Your task to perform on an android device: check google app version Image 0: 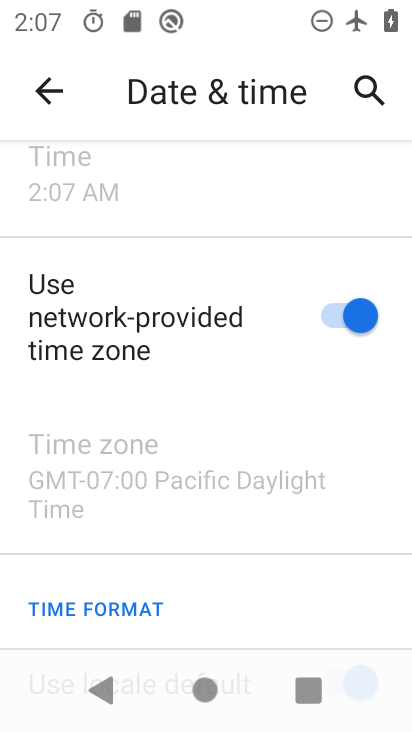
Step 0: press home button
Your task to perform on an android device: check google app version Image 1: 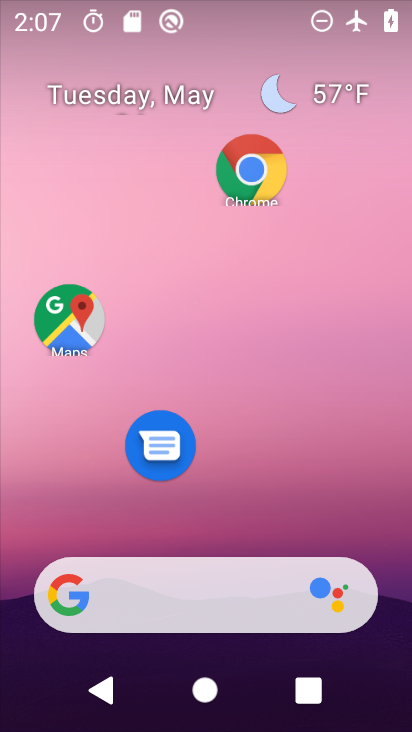
Step 1: drag from (235, 722) to (235, 171)
Your task to perform on an android device: check google app version Image 2: 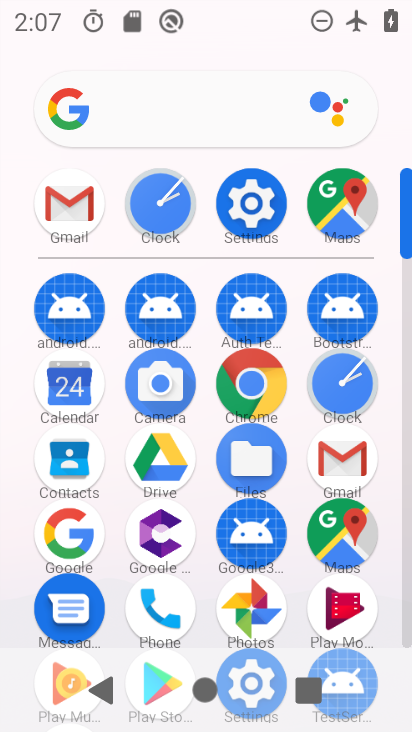
Step 2: click (75, 530)
Your task to perform on an android device: check google app version Image 3: 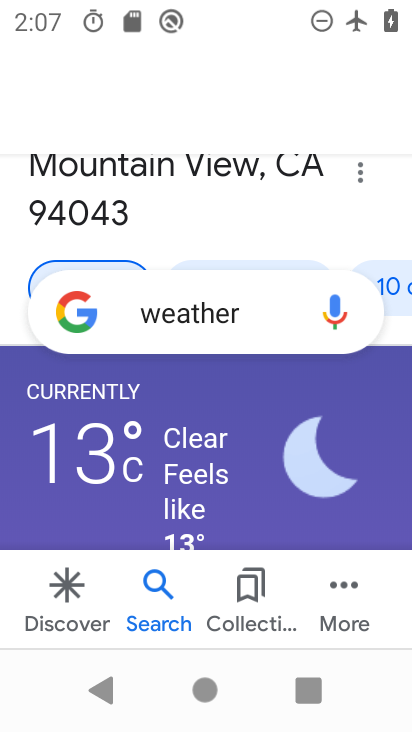
Step 3: click (348, 587)
Your task to perform on an android device: check google app version Image 4: 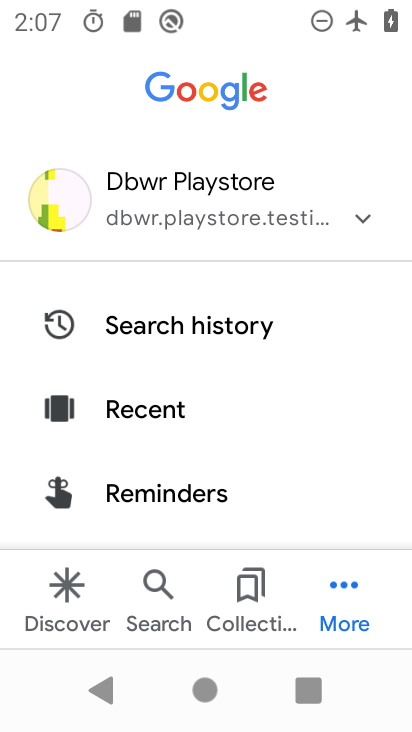
Step 4: drag from (228, 512) to (216, 176)
Your task to perform on an android device: check google app version Image 5: 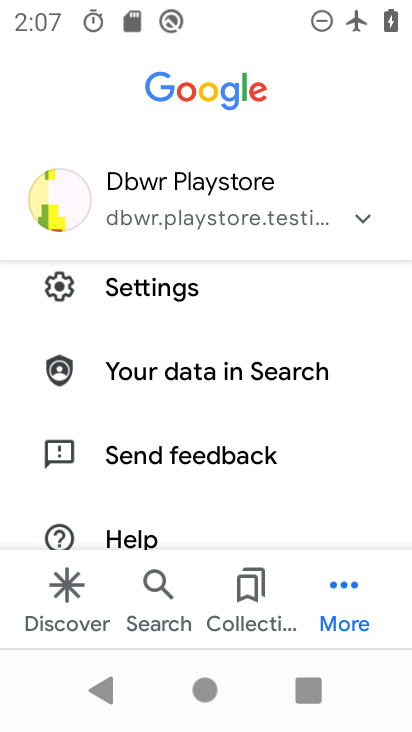
Step 5: click (157, 502)
Your task to perform on an android device: check google app version Image 6: 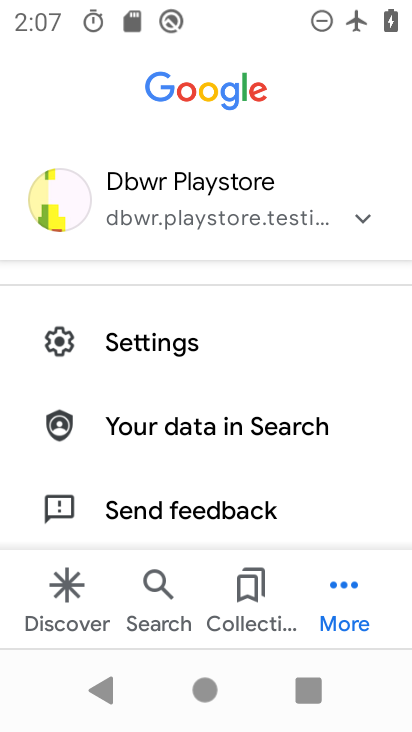
Step 6: click (147, 346)
Your task to perform on an android device: check google app version Image 7: 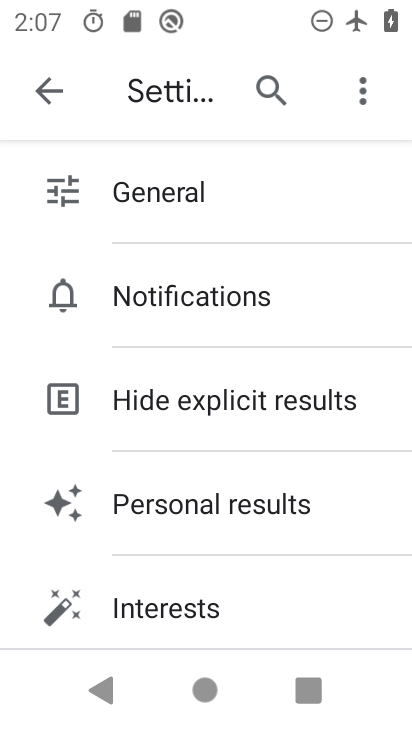
Step 7: drag from (159, 586) to (184, 213)
Your task to perform on an android device: check google app version Image 8: 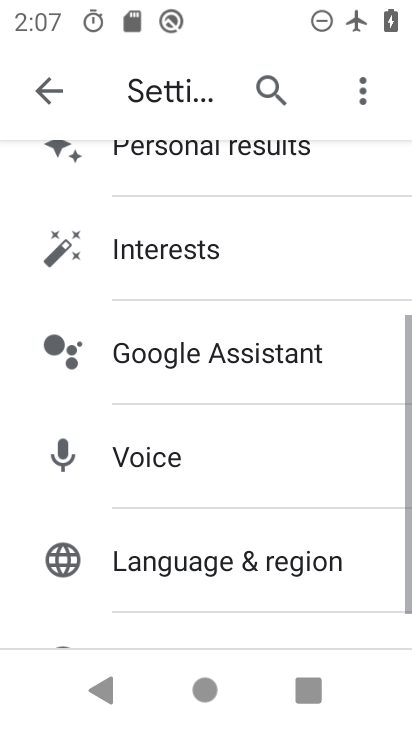
Step 8: drag from (180, 590) to (194, 250)
Your task to perform on an android device: check google app version Image 9: 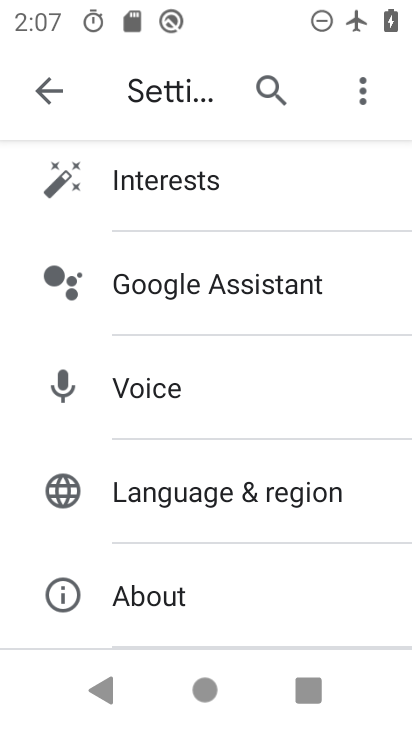
Step 9: click (171, 594)
Your task to perform on an android device: check google app version Image 10: 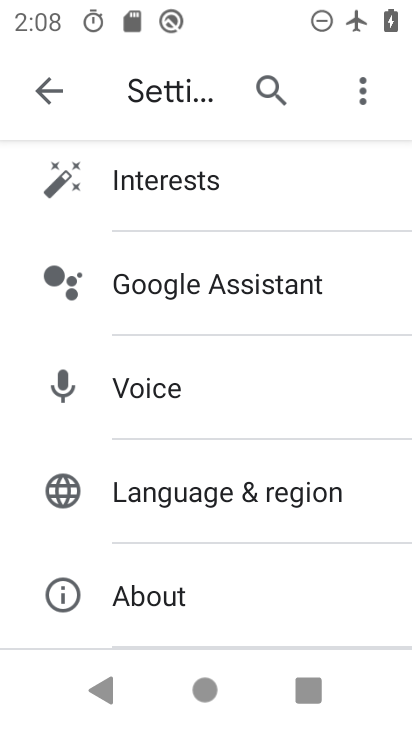
Step 10: click (133, 597)
Your task to perform on an android device: check google app version Image 11: 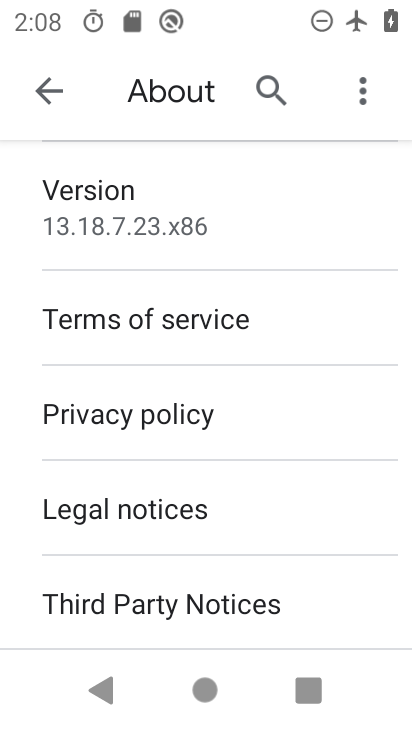
Step 11: task complete